Your task to perform on an android device: uninstall "Adobe Express: Graphic Design" Image 0: 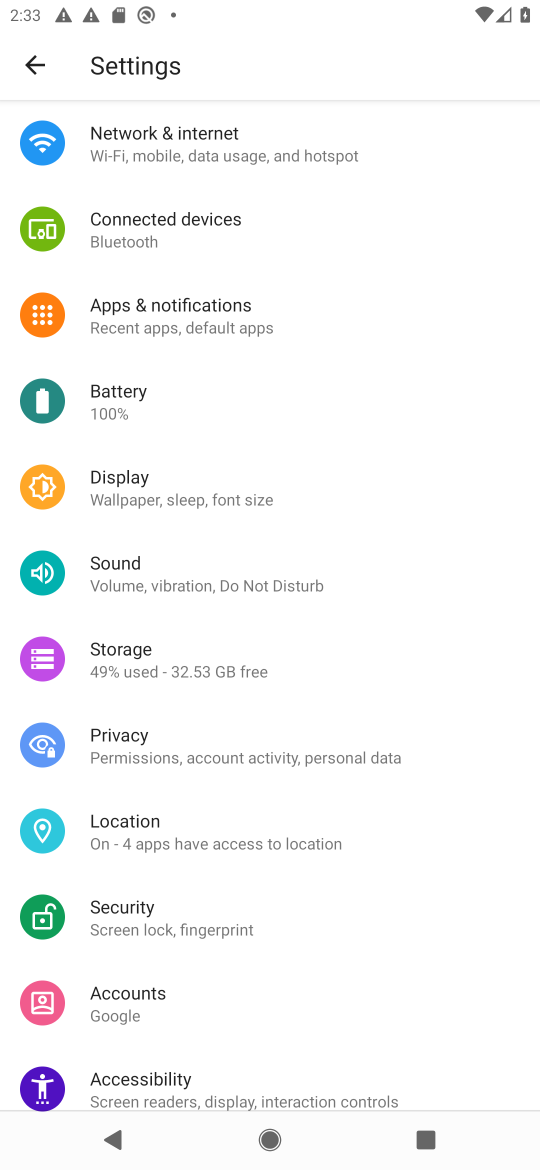
Step 0: press home button
Your task to perform on an android device: uninstall "Adobe Express: Graphic Design" Image 1: 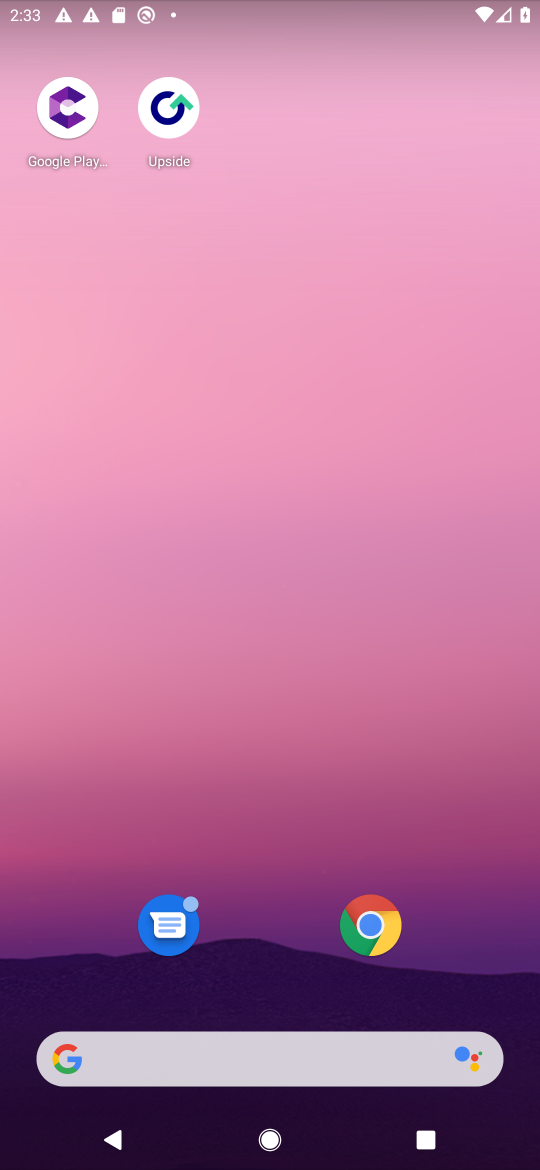
Step 1: drag from (276, 864) to (293, 0)
Your task to perform on an android device: uninstall "Adobe Express: Graphic Design" Image 2: 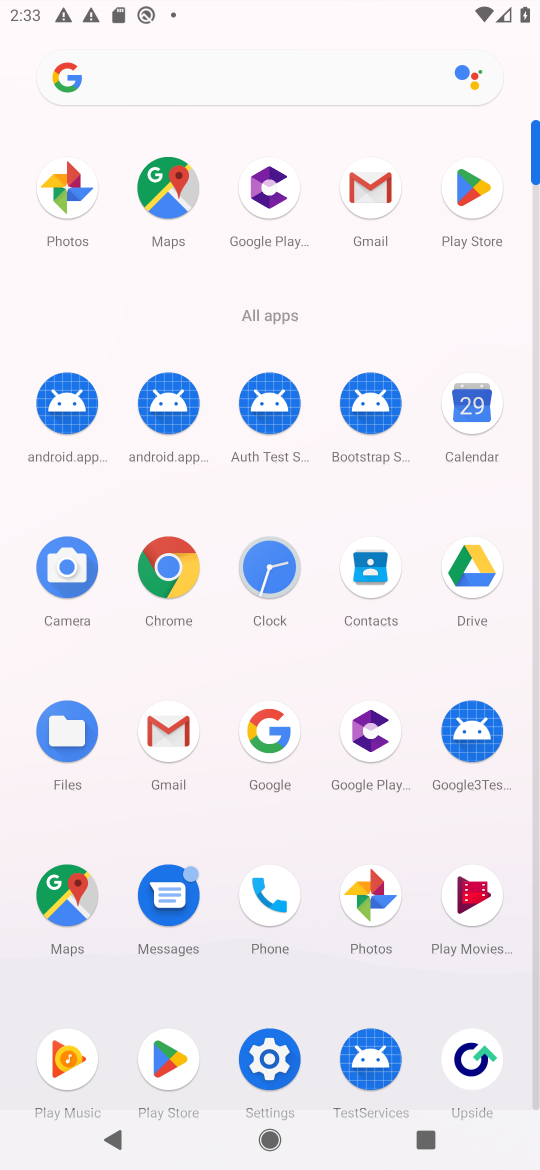
Step 2: click (477, 189)
Your task to perform on an android device: uninstall "Adobe Express: Graphic Design" Image 3: 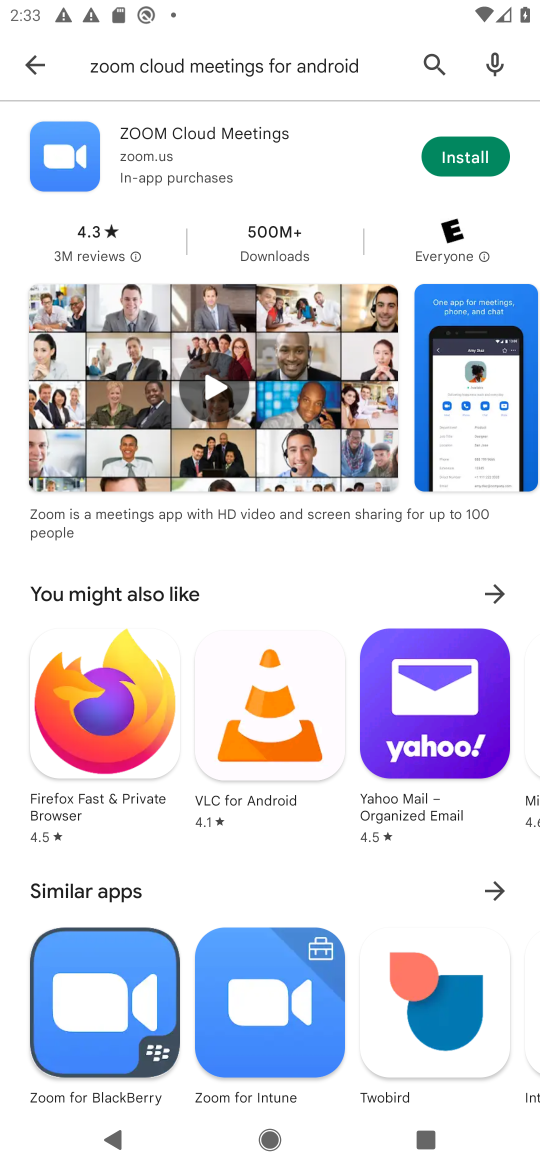
Step 3: click (428, 67)
Your task to perform on an android device: uninstall "Adobe Express: Graphic Design" Image 4: 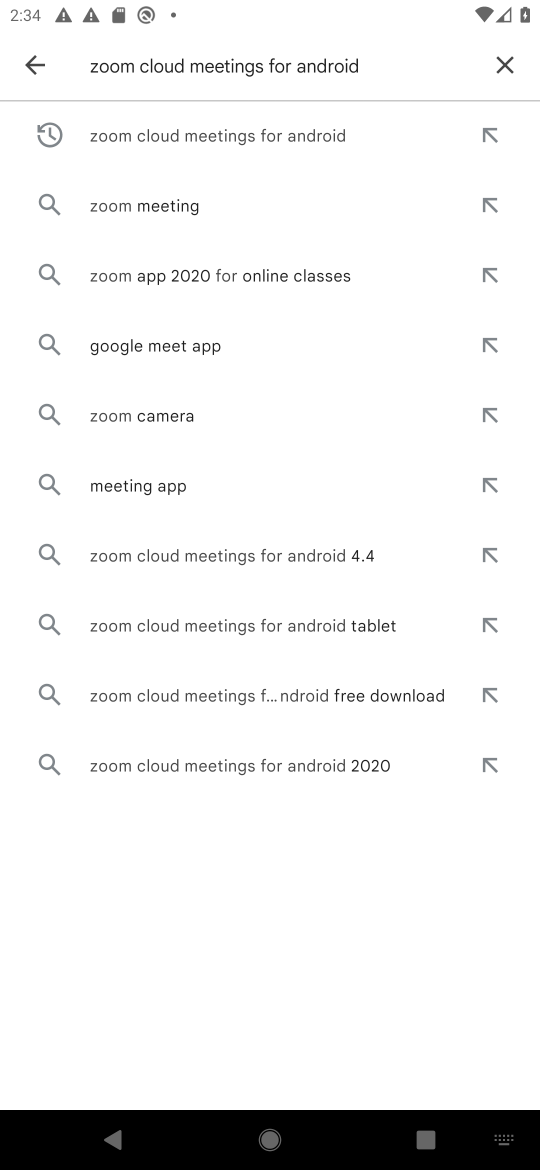
Step 4: click (496, 61)
Your task to perform on an android device: uninstall "Adobe Express: Graphic Design" Image 5: 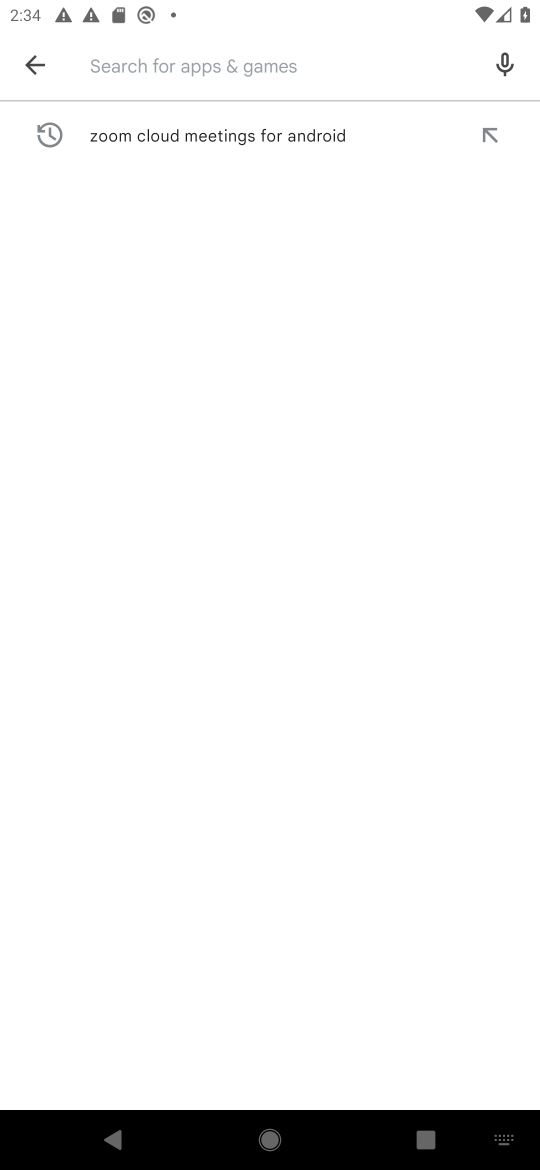
Step 5: type "Adobe Express: Graphic Design"
Your task to perform on an android device: uninstall "Adobe Express: Graphic Design" Image 6: 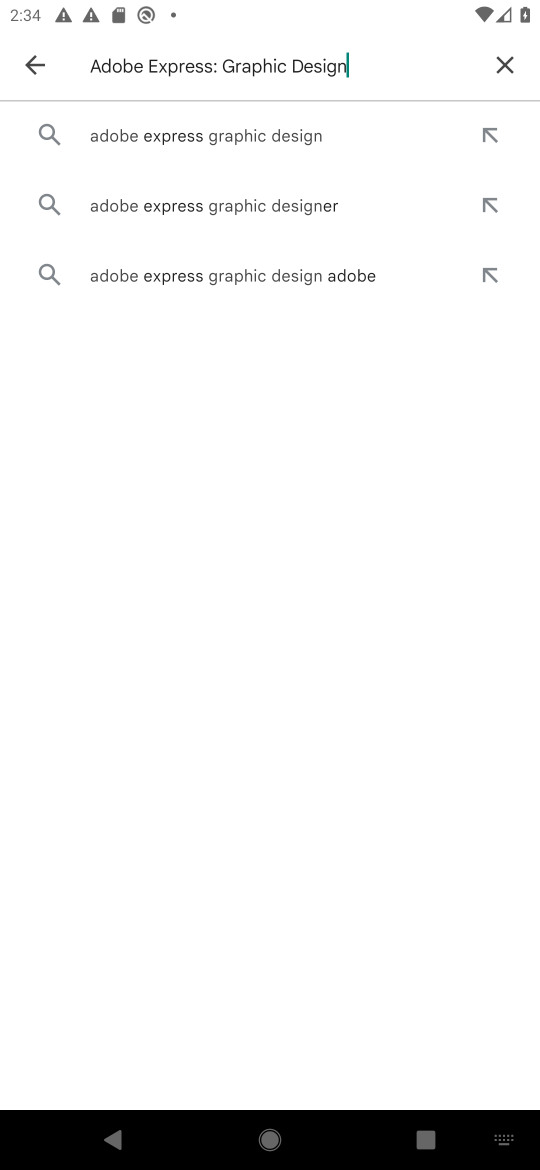
Step 6: click (194, 134)
Your task to perform on an android device: uninstall "Adobe Express: Graphic Design" Image 7: 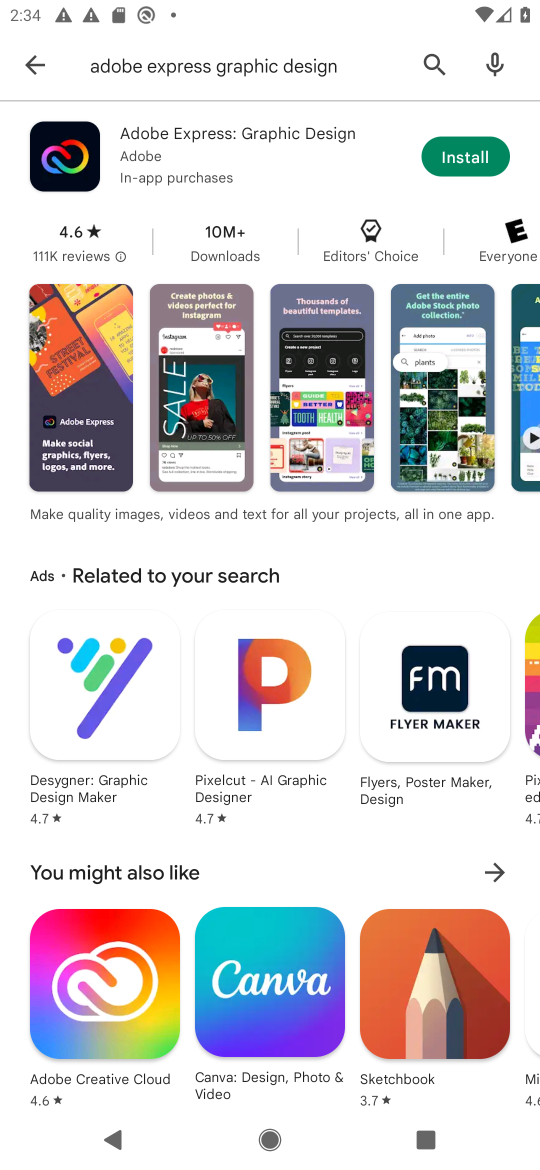
Step 7: task complete